Your task to perform on an android device: How big is a giraffe? Image 0: 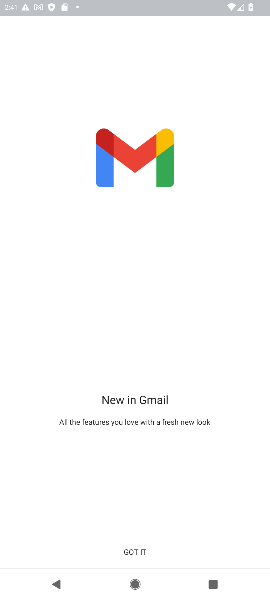
Step 0: press home button
Your task to perform on an android device: How big is a giraffe? Image 1: 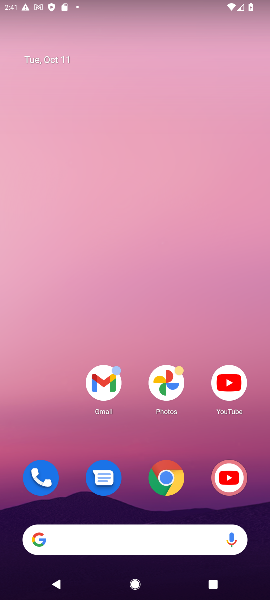
Step 1: click (159, 485)
Your task to perform on an android device: How big is a giraffe? Image 2: 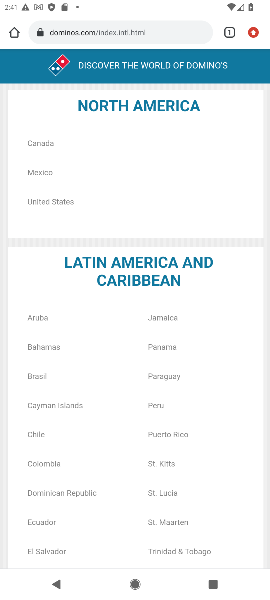
Step 2: click (127, 35)
Your task to perform on an android device: How big is a giraffe? Image 3: 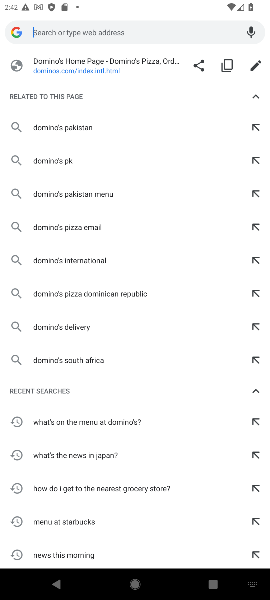
Step 3: type "How big is a giraffe?"
Your task to perform on an android device: How big is a giraffe? Image 4: 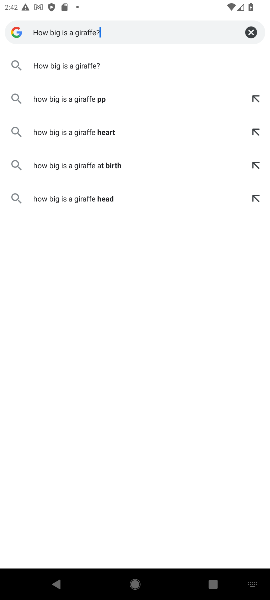
Step 4: click (150, 33)
Your task to perform on an android device: How big is a giraffe? Image 5: 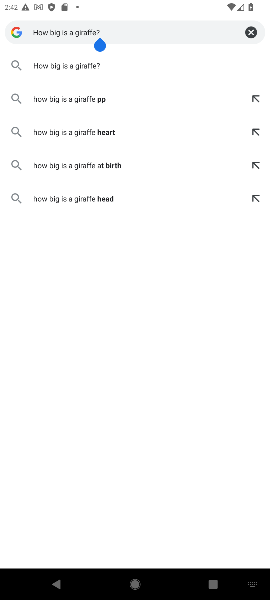
Step 5: press enter
Your task to perform on an android device: How big is a giraffe? Image 6: 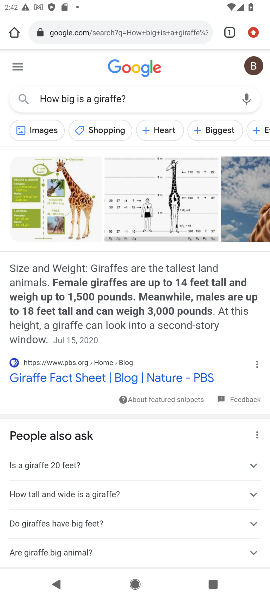
Step 6: task complete